Your task to perform on an android device: change the clock style Image 0: 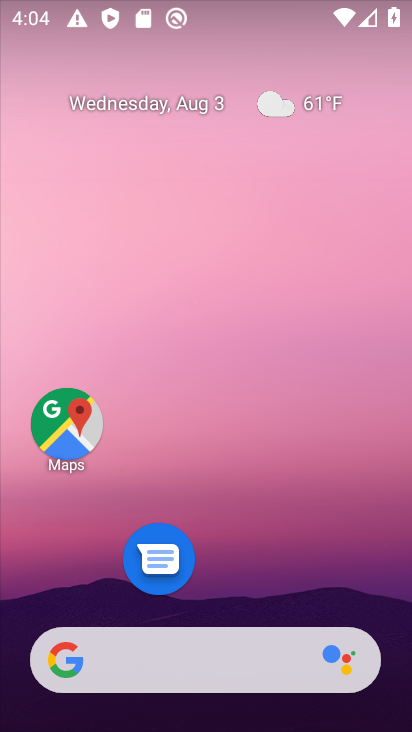
Step 0: drag from (252, 423) to (222, 123)
Your task to perform on an android device: change the clock style Image 1: 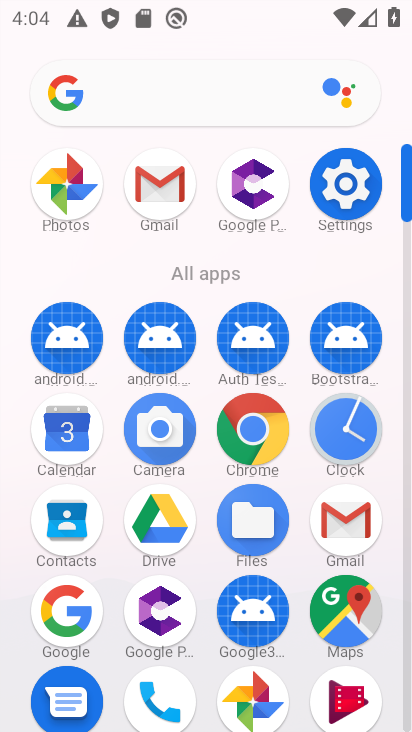
Step 1: click (343, 193)
Your task to perform on an android device: change the clock style Image 2: 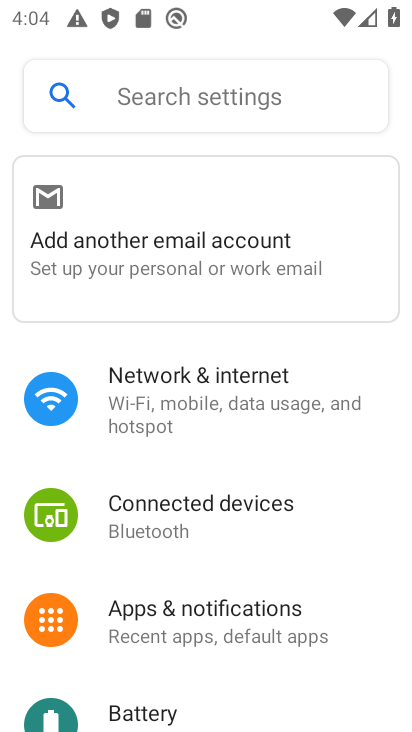
Step 2: press home button
Your task to perform on an android device: change the clock style Image 3: 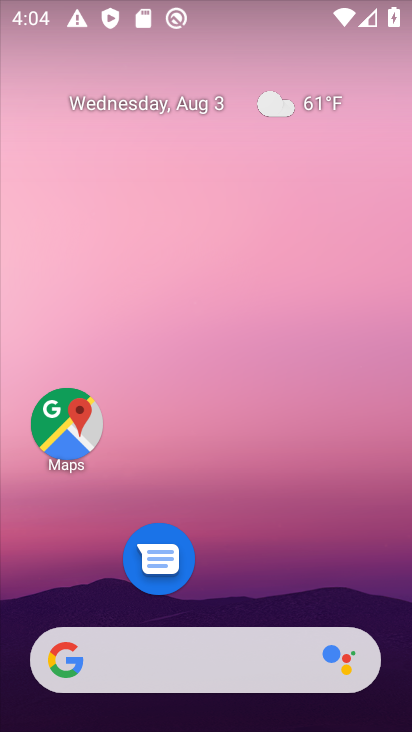
Step 3: drag from (151, 515) to (148, 181)
Your task to perform on an android device: change the clock style Image 4: 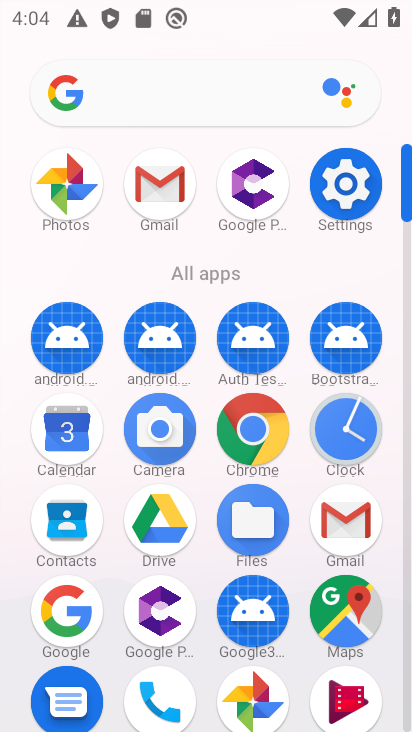
Step 4: click (345, 437)
Your task to perform on an android device: change the clock style Image 5: 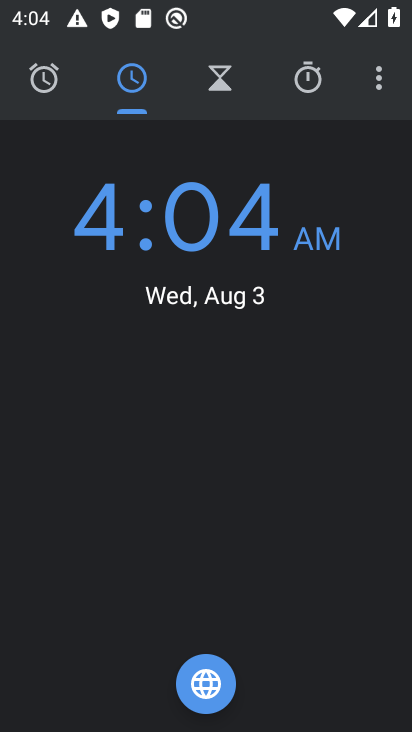
Step 5: click (384, 87)
Your task to perform on an android device: change the clock style Image 6: 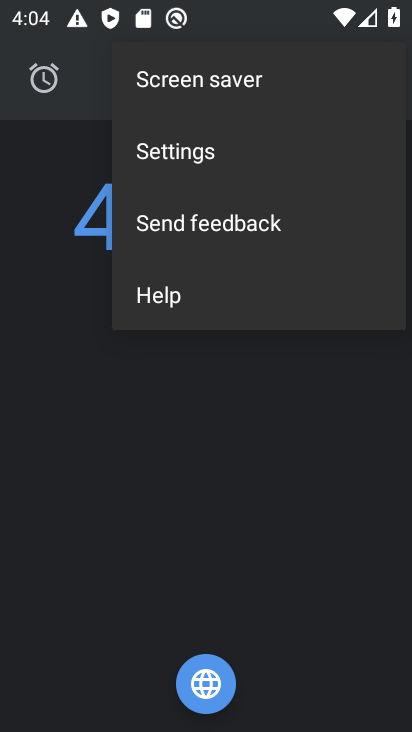
Step 6: click (158, 151)
Your task to perform on an android device: change the clock style Image 7: 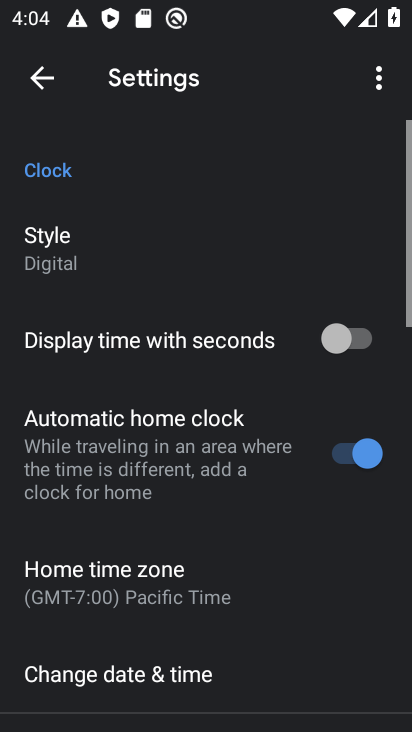
Step 7: click (77, 258)
Your task to perform on an android device: change the clock style Image 8: 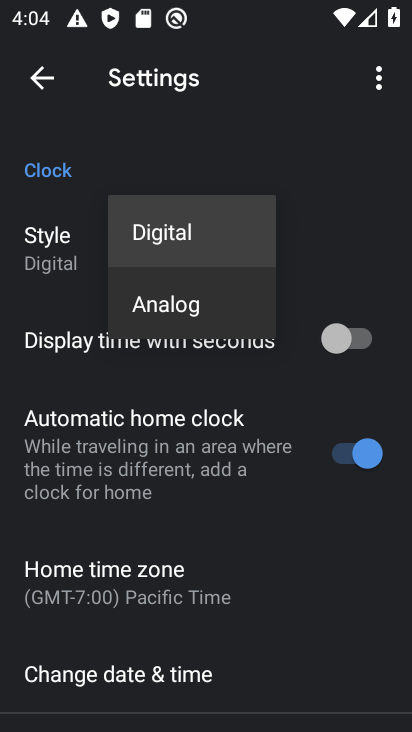
Step 8: click (155, 305)
Your task to perform on an android device: change the clock style Image 9: 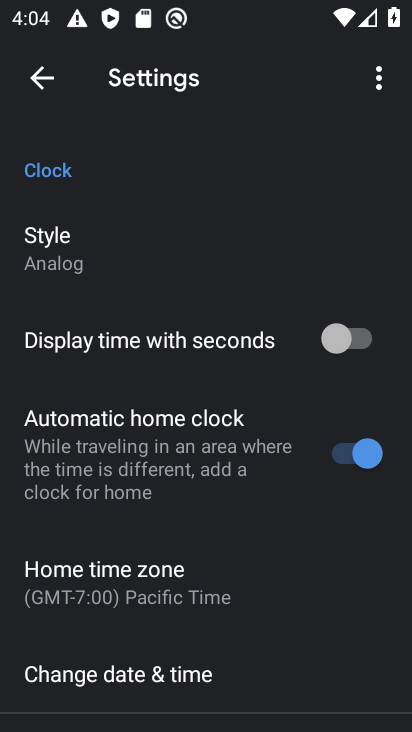
Step 9: task complete